Your task to perform on an android device: Add bose soundsport free to the cart on costco.com Image 0: 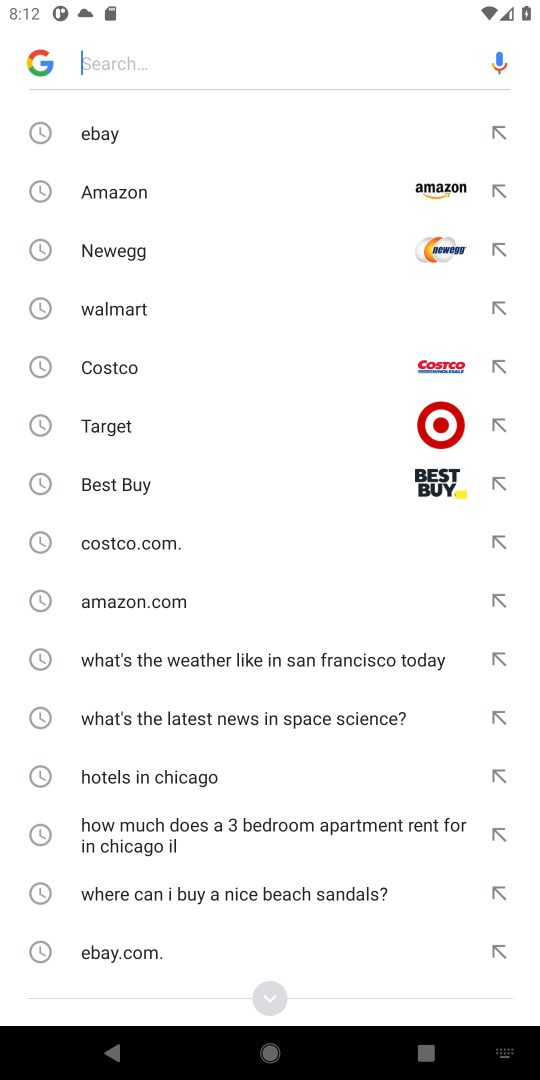
Step 0: click (105, 367)
Your task to perform on an android device: Add bose soundsport free to the cart on costco.com Image 1: 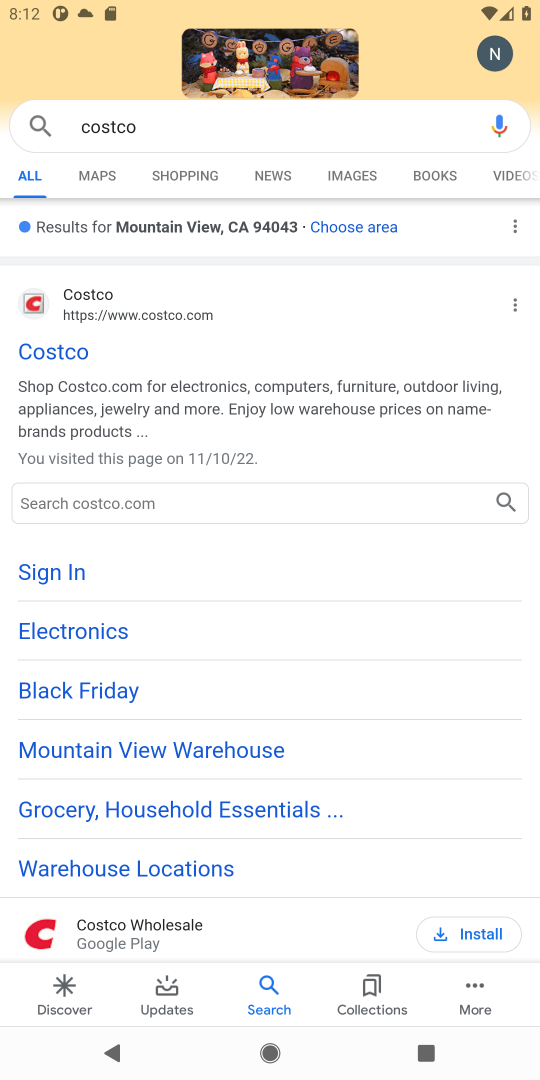
Step 1: click (37, 367)
Your task to perform on an android device: Add bose soundsport free to the cart on costco.com Image 2: 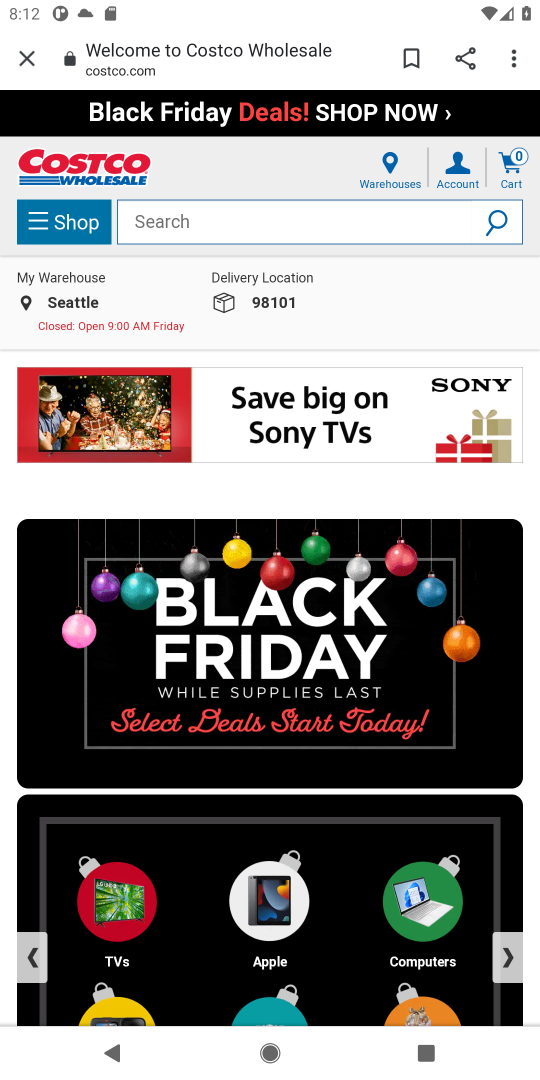
Step 2: click (162, 214)
Your task to perform on an android device: Add bose soundsport free to the cart on costco.com Image 3: 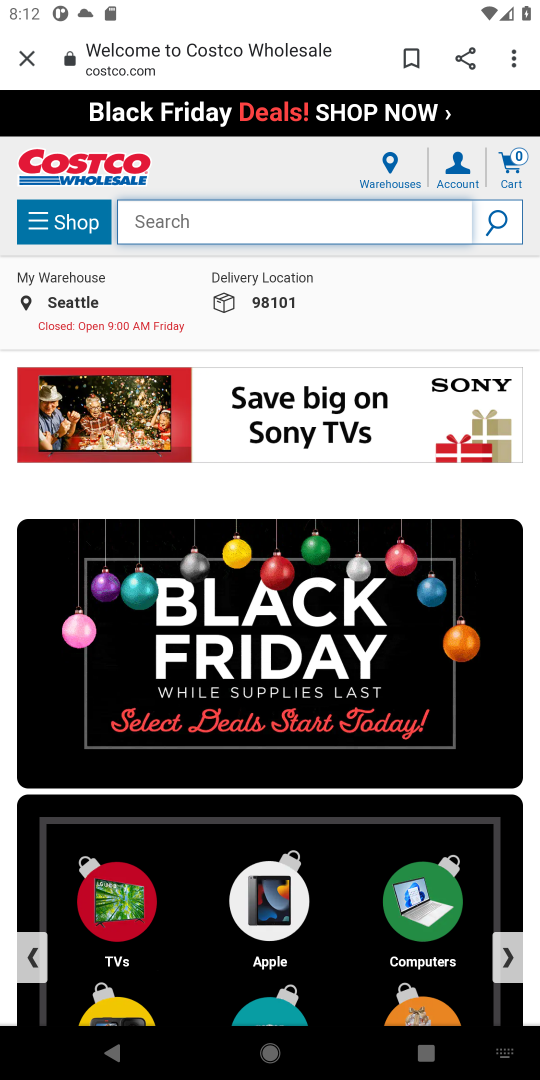
Step 3: type "bose soundsport free"
Your task to perform on an android device: Add bose soundsport free to the cart on costco.com Image 4: 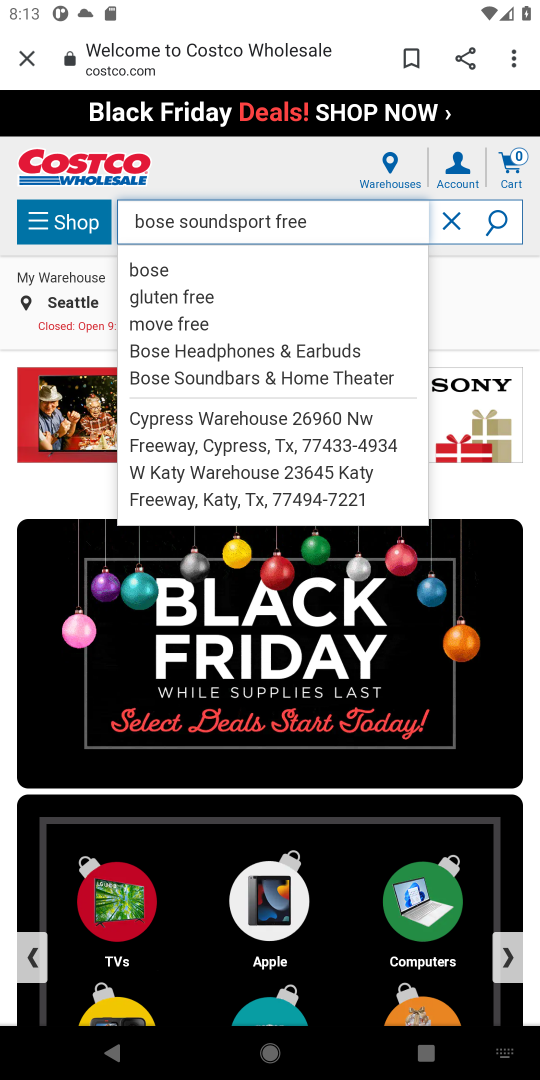
Step 4: click (493, 232)
Your task to perform on an android device: Add bose soundsport free to the cart on costco.com Image 5: 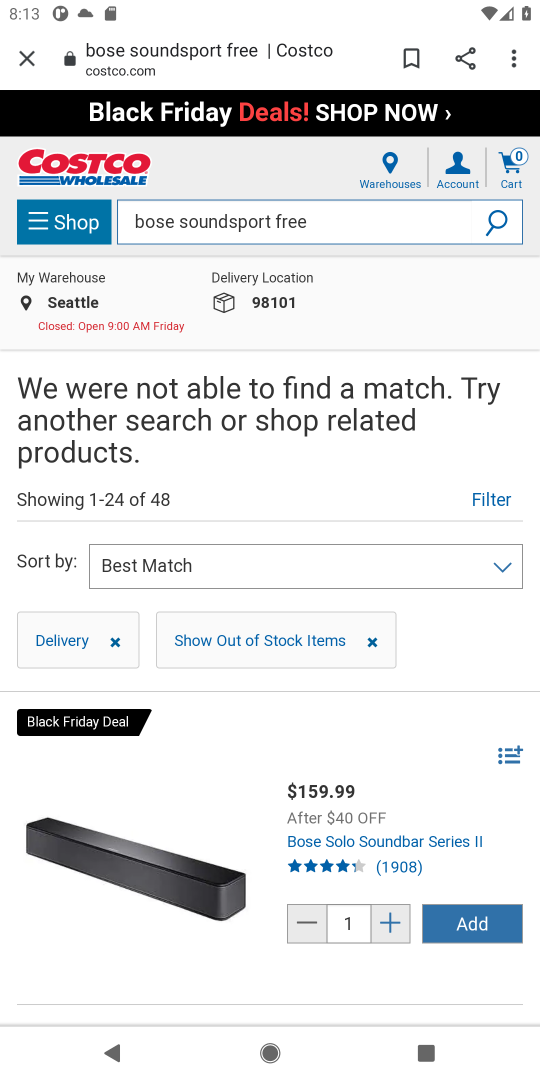
Step 5: task complete